Your task to perform on an android device: Open my contact list Image 0: 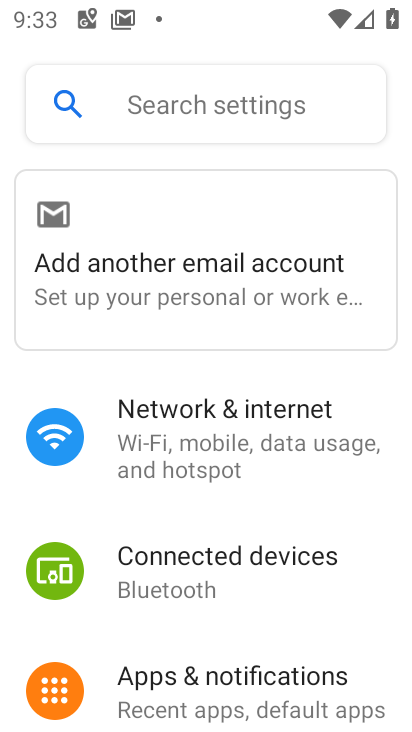
Step 0: press home button
Your task to perform on an android device: Open my contact list Image 1: 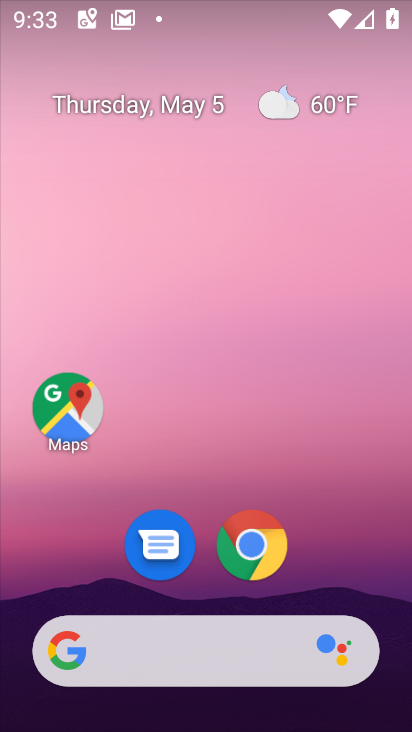
Step 1: drag from (100, 608) to (193, 135)
Your task to perform on an android device: Open my contact list Image 2: 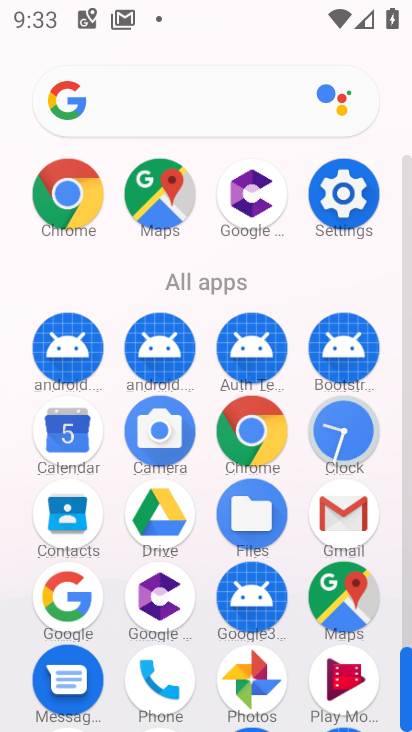
Step 2: drag from (130, 626) to (194, 335)
Your task to perform on an android device: Open my contact list Image 3: 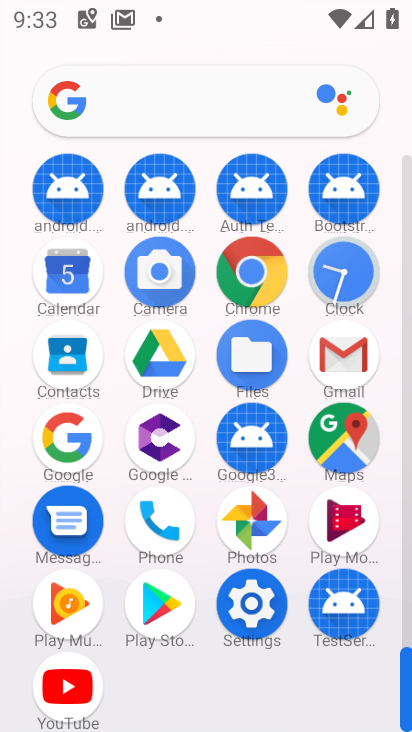
Step 3: click (55, 362)
Your task to perform on an android device: Open my contact list Image 4: 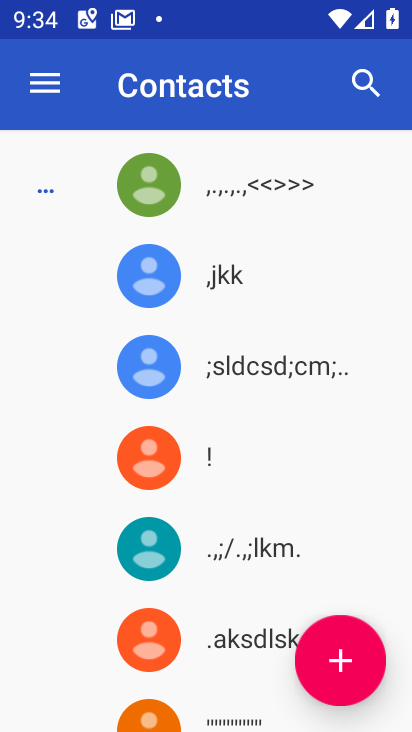
Step 4: task complete